Your task to perform on an android device: open sync settings in chrome Image 0: 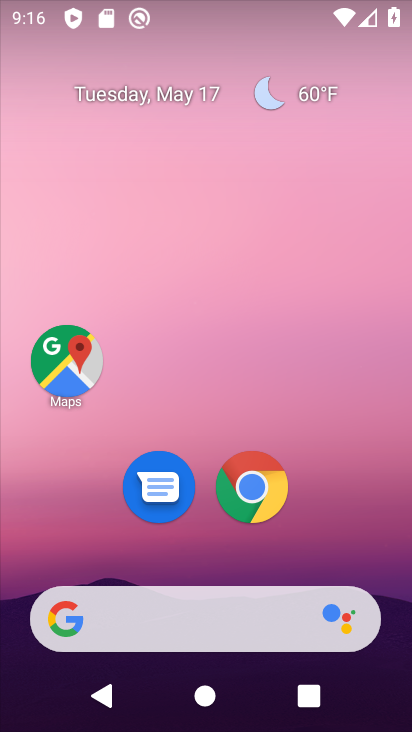
Step 0: drag from (195, 538) to (305, 0)
Your task to perform on an android device: open sync settings in chrome Image 1: 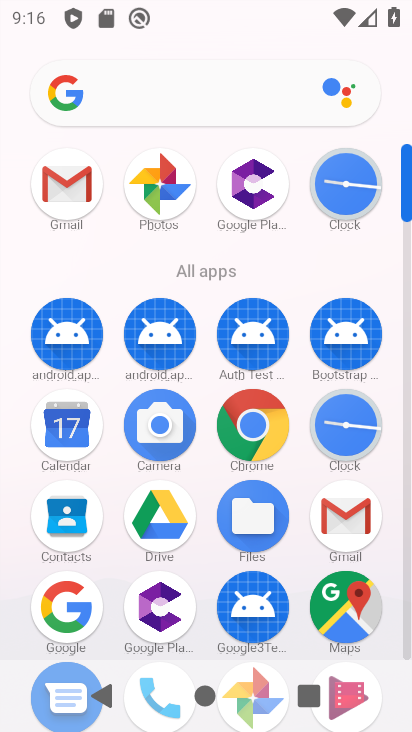
Step 1: click (250, 438)
Your task to perform on an android device: open sync settings in chrome Image 2: 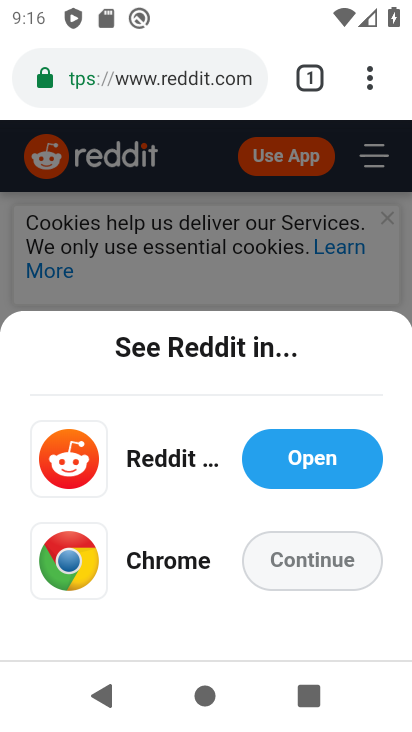
Step 2: click (366, 75)
Your task to perform on an android device: open sync settings in chrome Image 3: 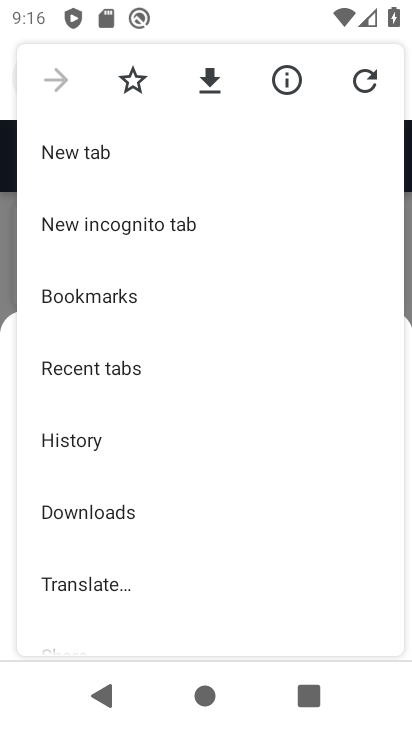
Step 3: drag from (106, 545) to (151, 263)
Your task to perform on an android device: open sync settings in chrome Image 4: 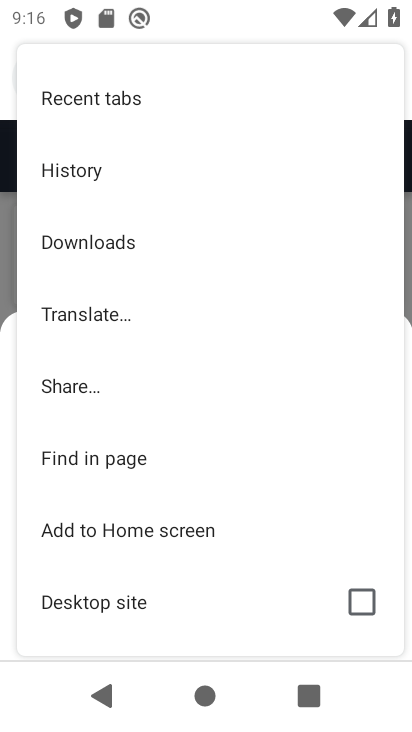
Step 4: drag from (114, 512) to (162, 236)
Your task to perform on an android device: open sync settings in chrome Image 5: 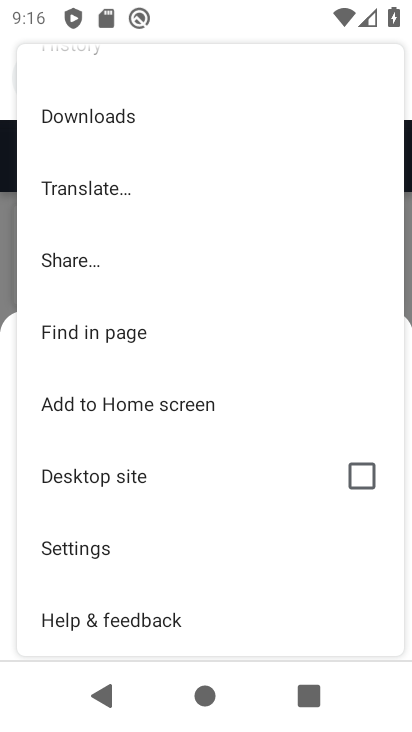
Step 5: click (101, 549)
Your task to perform on an android device: open sync settings in chrome Image 6: 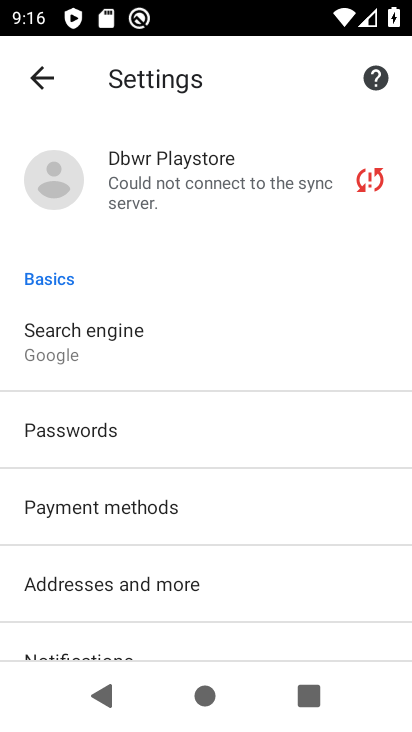
Step 6: click (179, 184)
Your task to perform on an android device: open sync settings in chrome Image 7: 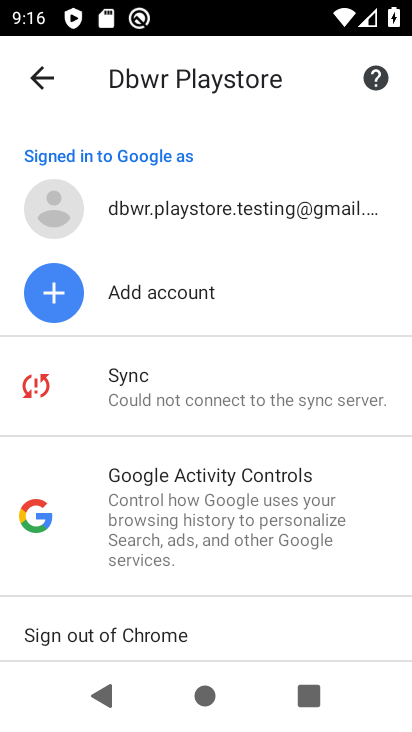
Step 7: click (162, 393)
Your task to perform on an android device: open sync settings in chrome Image 8: 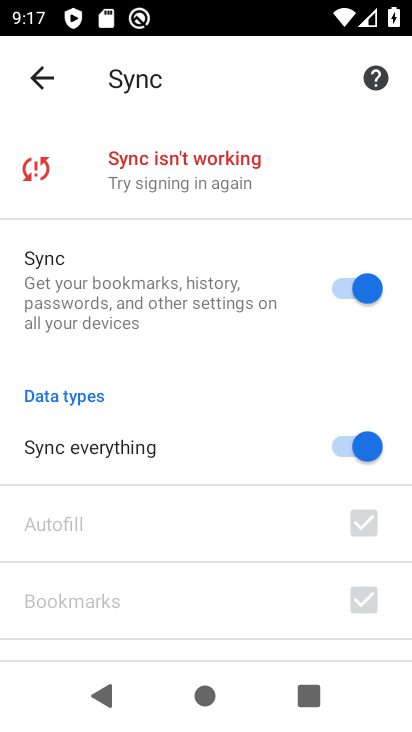
Step 8: click (201, 189)
Your task to perform on an android device: open sync settings in chrome Image 9: 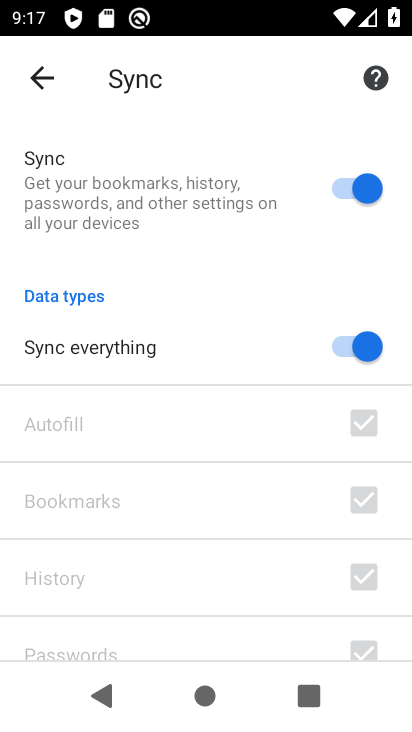
Step 9: task complete